Your task to perform on an android device: Go to location settings Image 0: 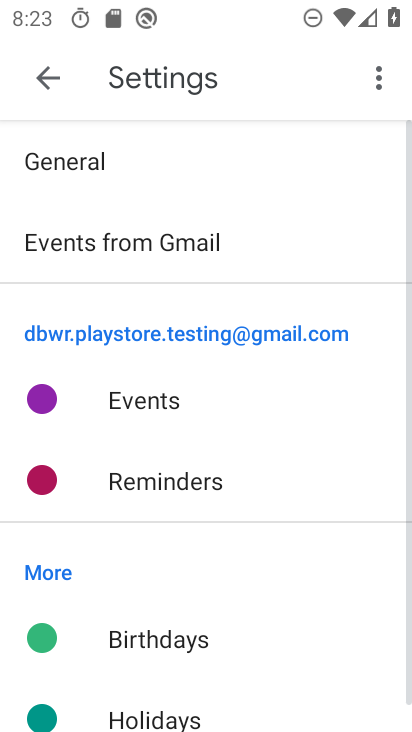
Step 0: press home button
Your task to perform on an android device: Go to location settings Image 1: 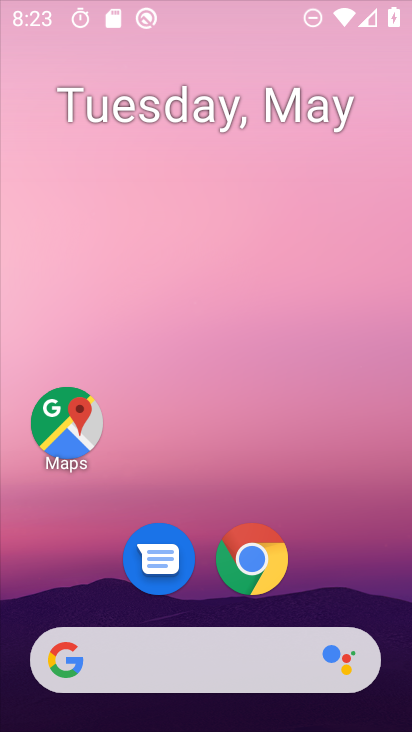
Step 1: drag from (392, 644) to (360, 86)
Your task to perform on an android device: Go to location settings Image 2: 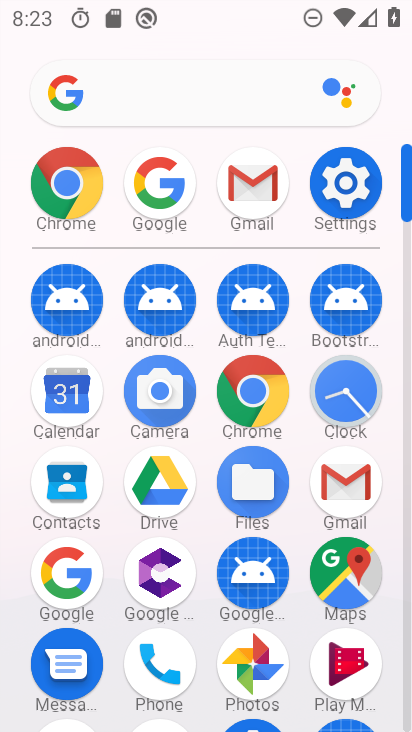
Step 2: click (339, 182)
Your task to perform on an android device: Go to location settings Image 3: 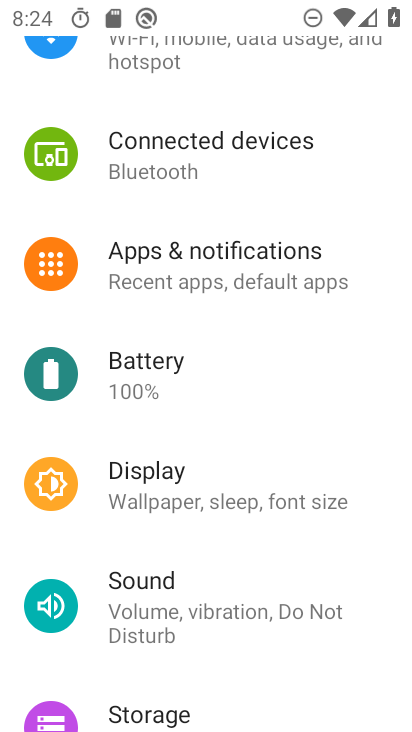
Step 3: drag from (242, 656) to (292, 135)
Your task to perform on an android device: Go to location settings Image 4: 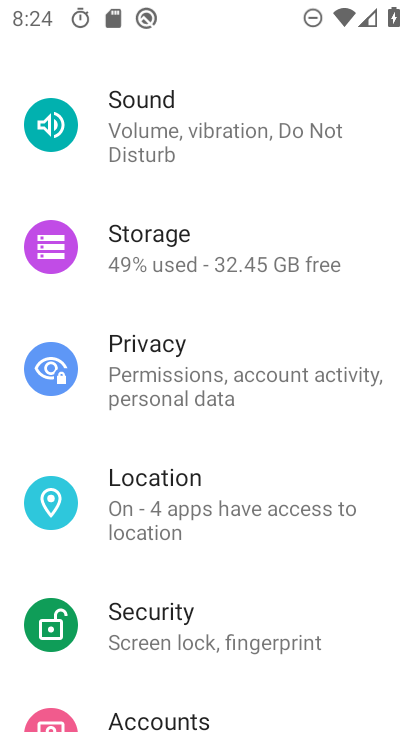
Step 4: click (163, 502)
Your task to perform on an android device: Go to location settings Image 5: 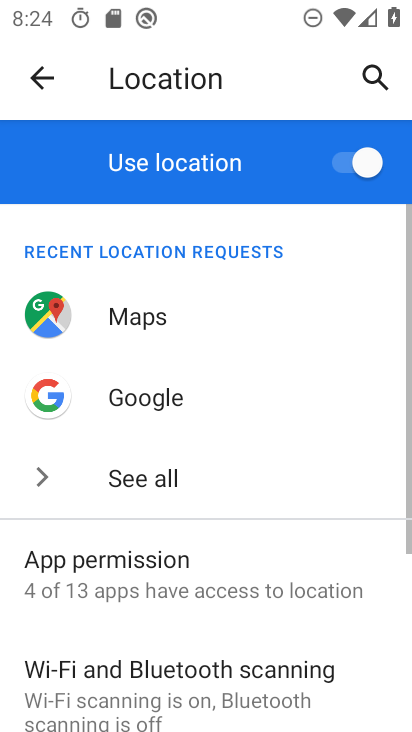
Step 5: task complete